Your task to perform on an android device: Search for custom wallets on Etsy. Image 0: 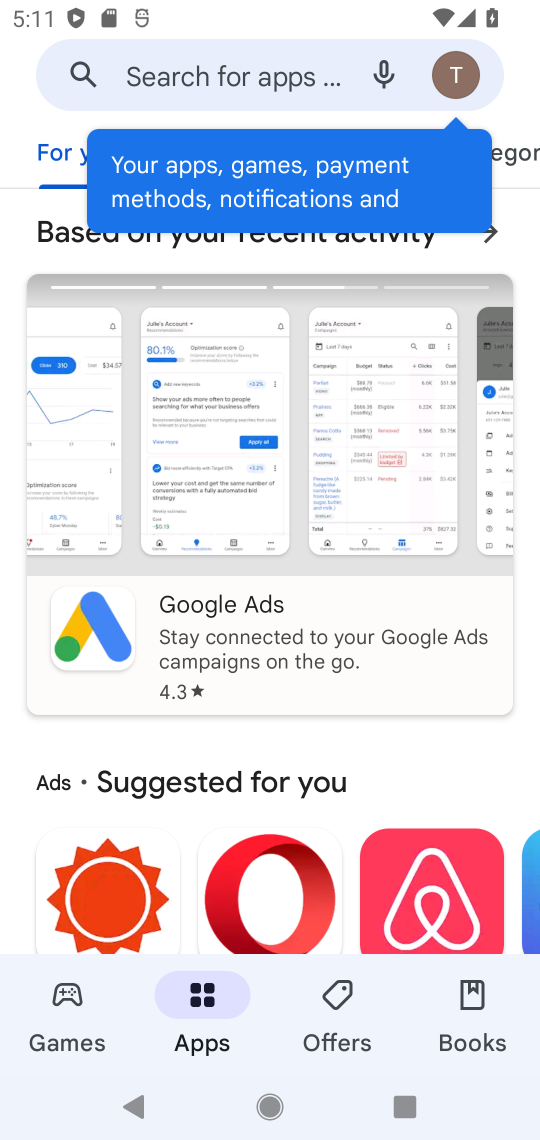
Step 0: press home button
Your task to perform on an android device: Search for custom wallets on Etsy. Image 1: 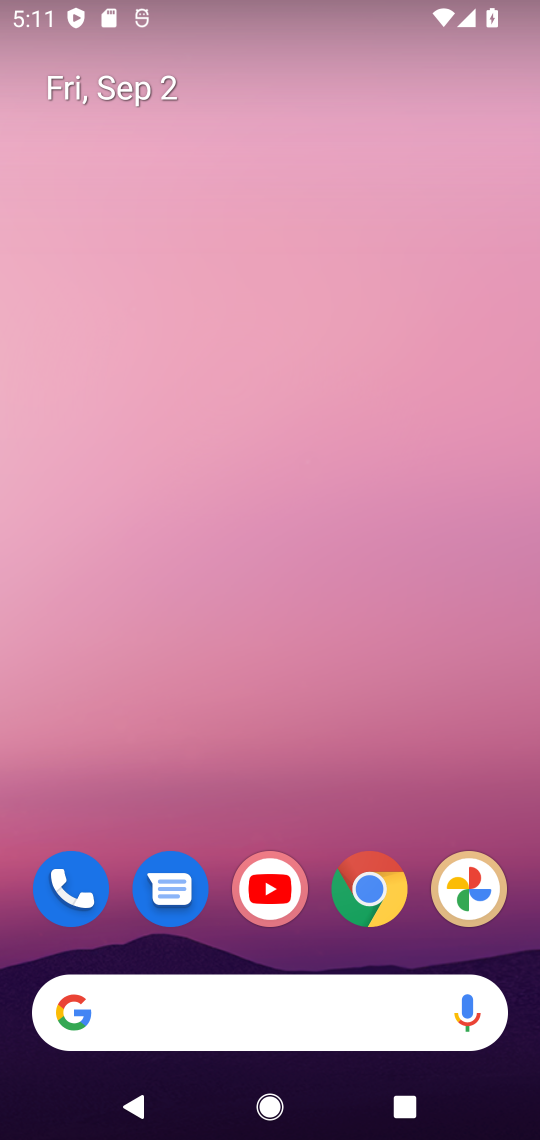
Step 1: click (363, 871)
Your task to perform on an android device: Search for custom wallets on Etsy. Image 2: 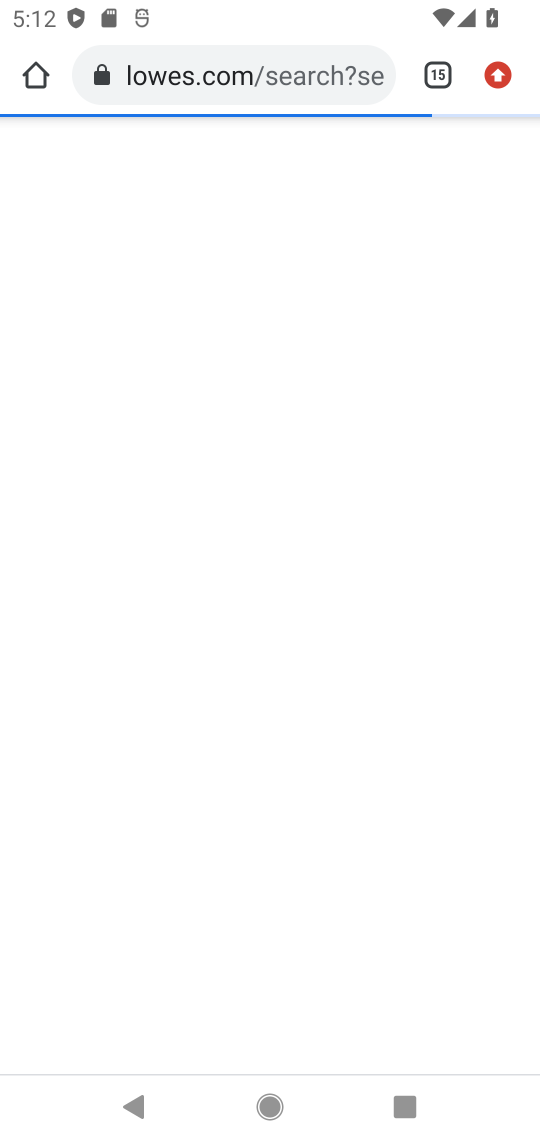
Step 2: click (432, 78)
Your task to perform on an android device: Search for custom wallets on Etsy. Image 3: 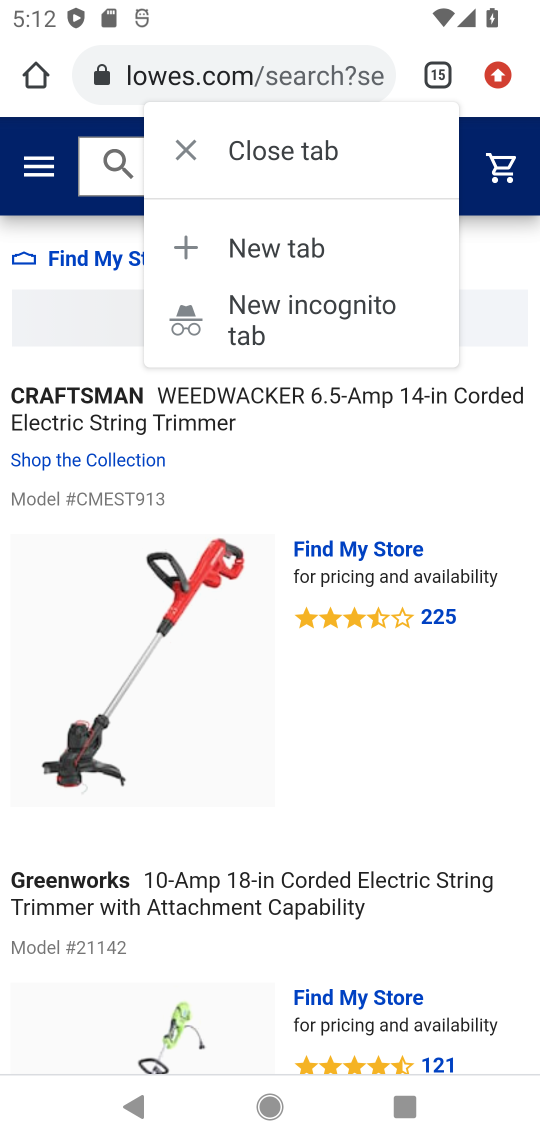
Step 3: click (445, 78)
Your task to perform on an android device: Search for custom wallets on Etsy. Image 4: 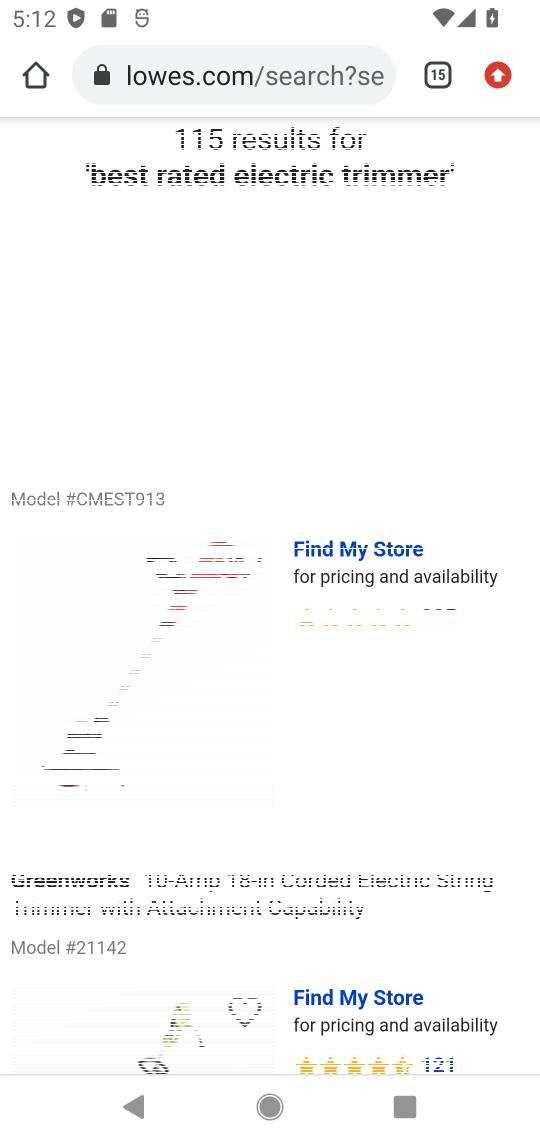
Step 4: click (439, 73)
Your task to perform on an android device: Search for custom wallets on Etsy. Image 5: 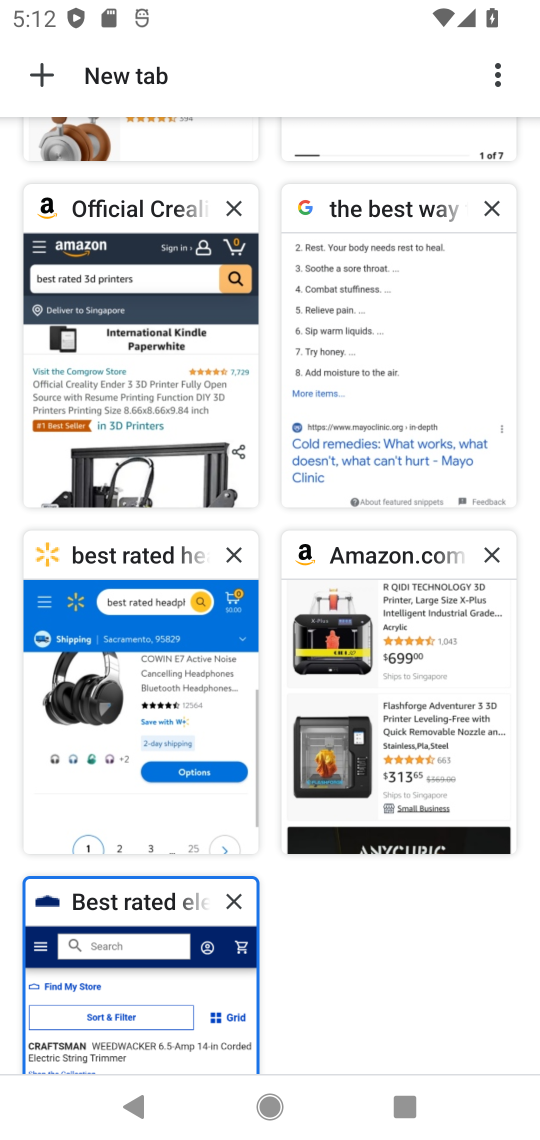
Step 5: click (47, 83)
Your task to perform on an android device: Search for custom wallets on Etsy. Image 6: 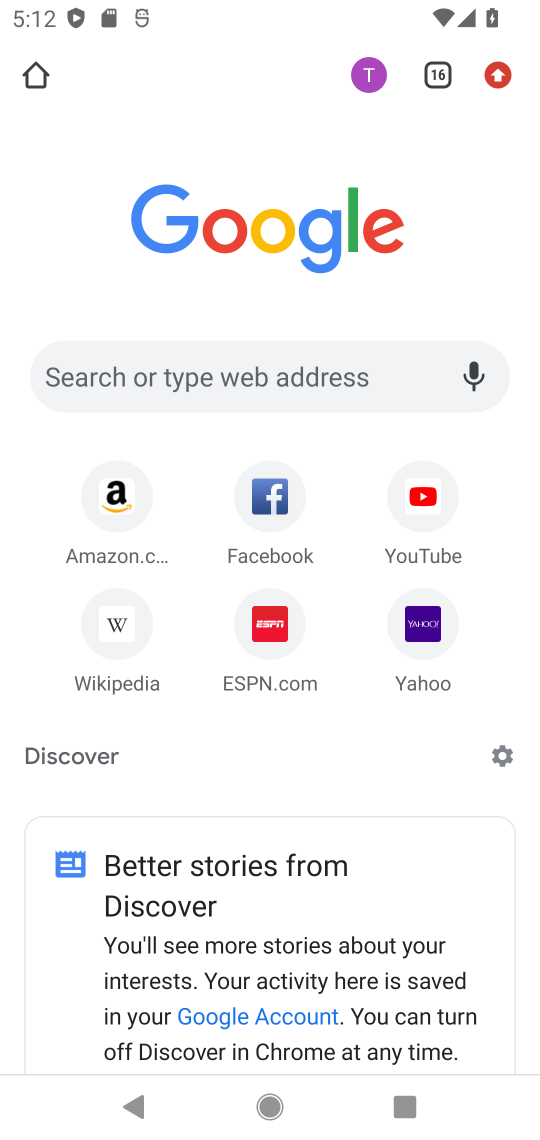
Step 6: click (226, 349)
Your task to perform on an android device: Search for custom wallets on Etsy. Image 7: 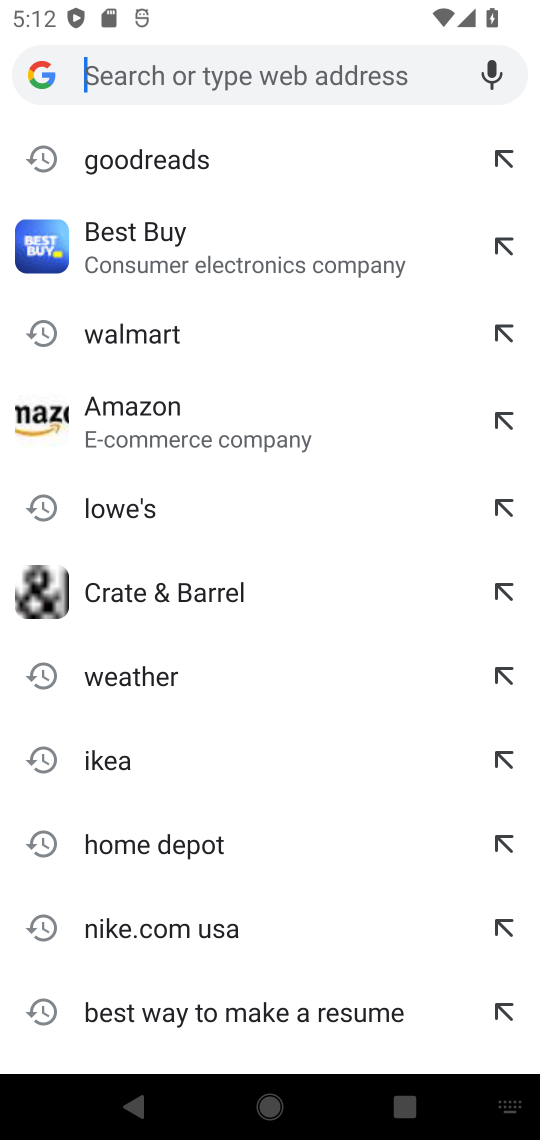
Step 7: type "Etsy."
Your task to perform on an android device: Search for custom wallets on Etsy. Image 8: 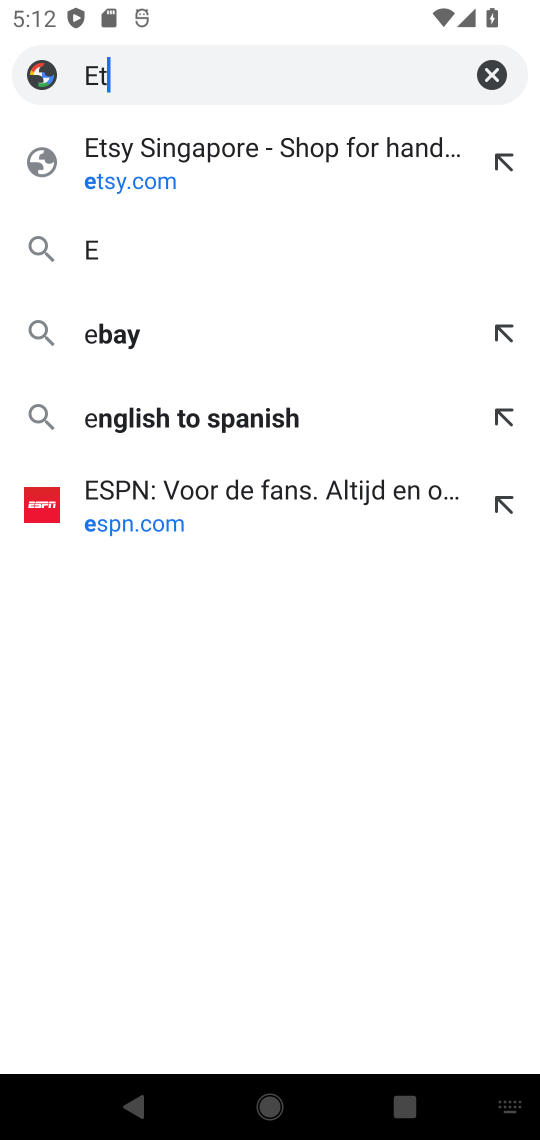
Step 8: type ""
Your task to perform on an android device: Search for custom wallets on Etsy. Image 9: 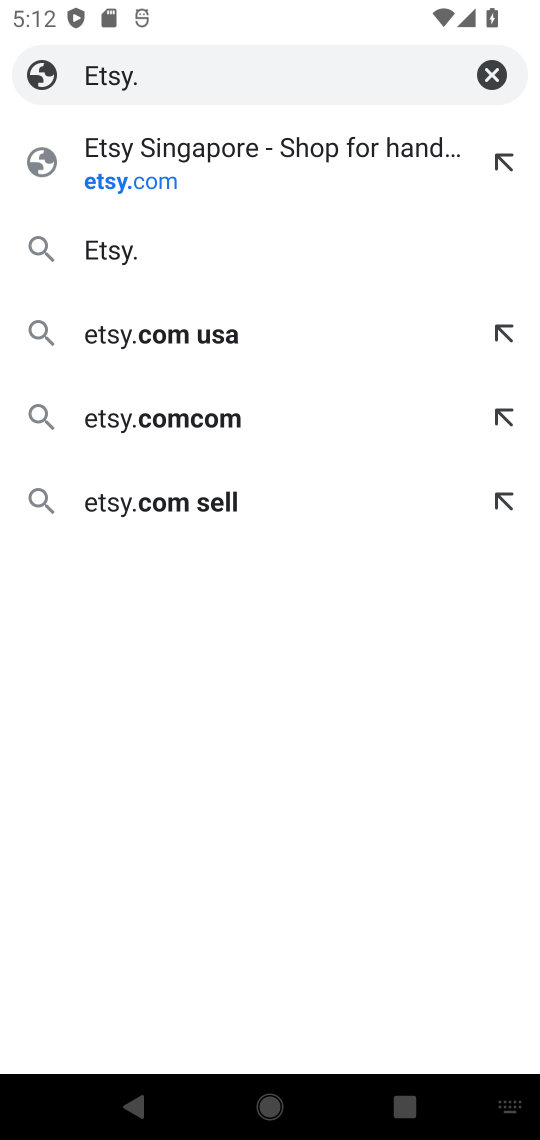
Step 9: click (185, 246)
Your task to perform on an android device: Search for custom wallets on Etsy. Image 10: 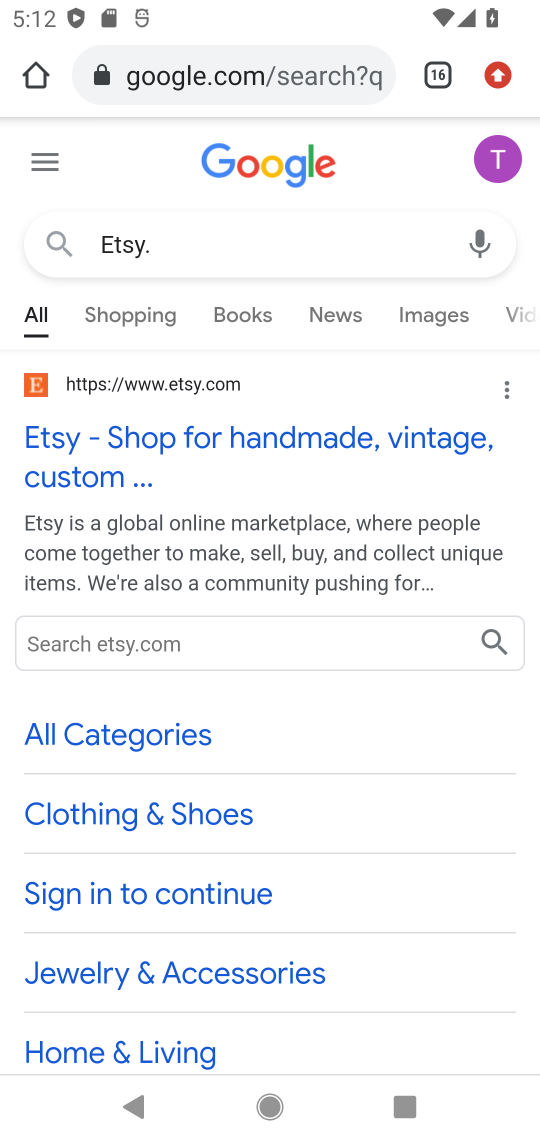
Step 10: click (210, 410)
Your task to perform on an android device: Search for custom wallets on Etsy. Image 11: 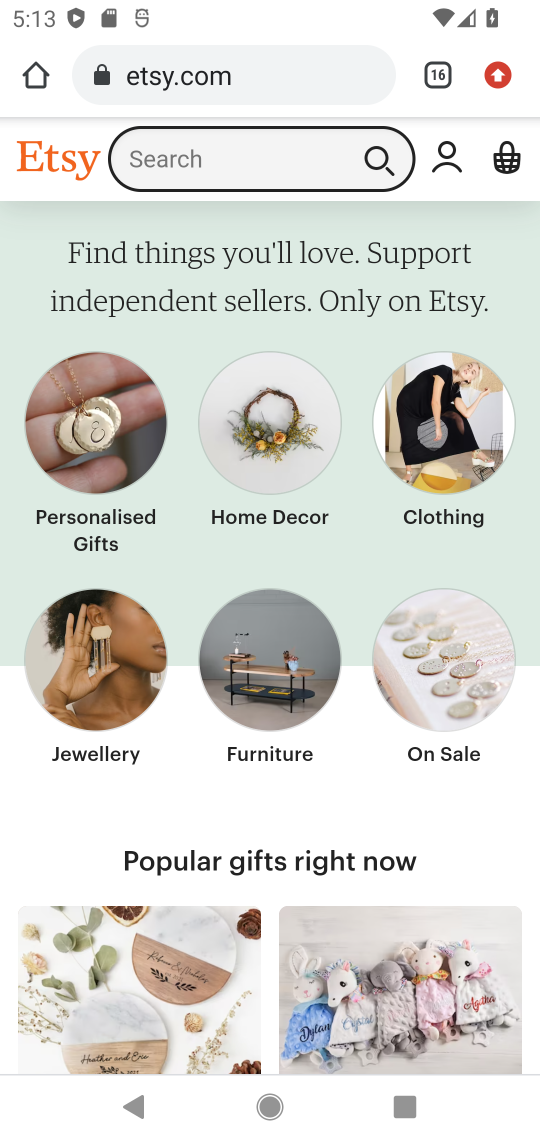
Step 11: type "custom wallets"
Your task to perform on an android device: Search for custom wallets on Etsy. Image 12: 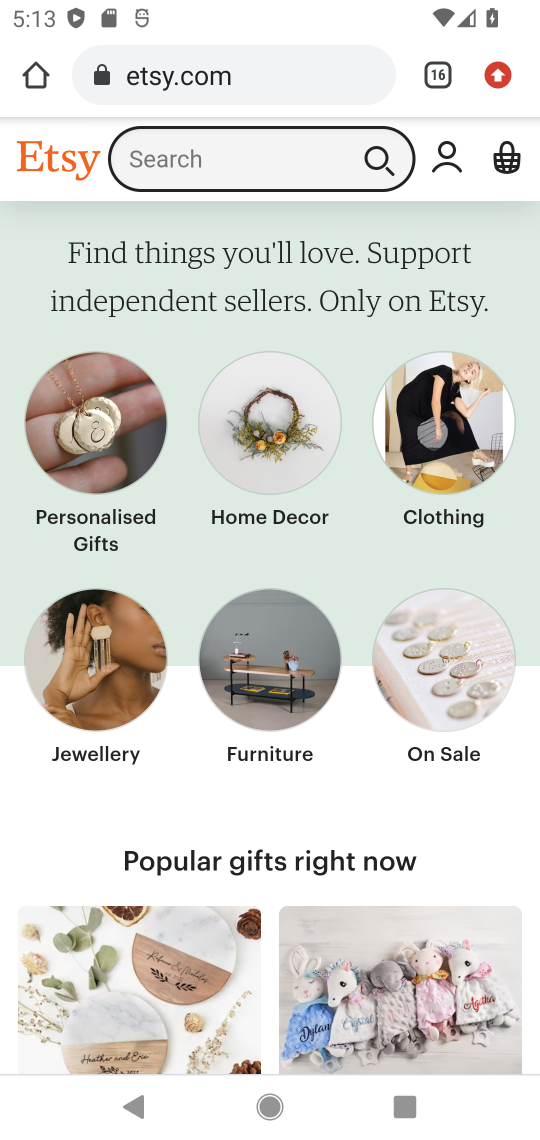
Step 12: type ""
Your task to perform on an android device: Search for custom wallets on Etsy. Image 13: 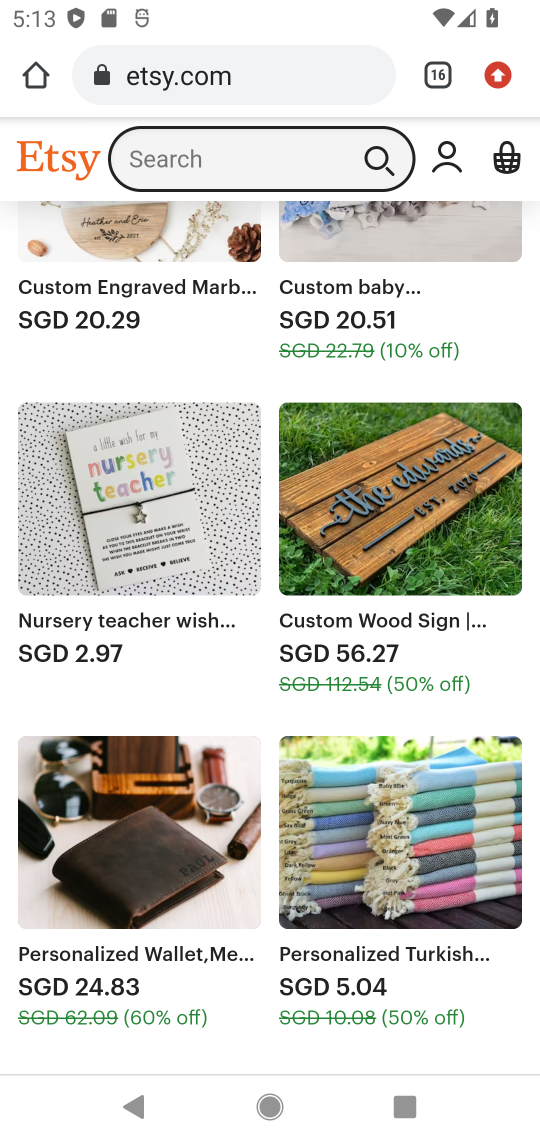
Step 13: click (193, 172)
Your task to perform on an android device: Search for custom wallets on Etsy. Image 14: 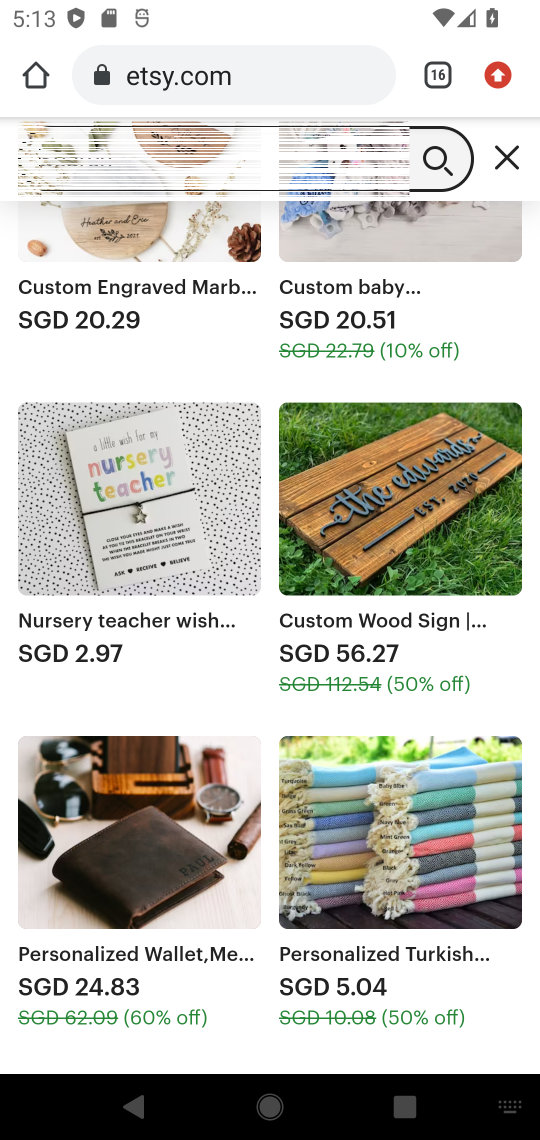
Step 14: type "custom wallets"
Your task to perform on an android device: Search for custom wallets on Etsy. Image 15: 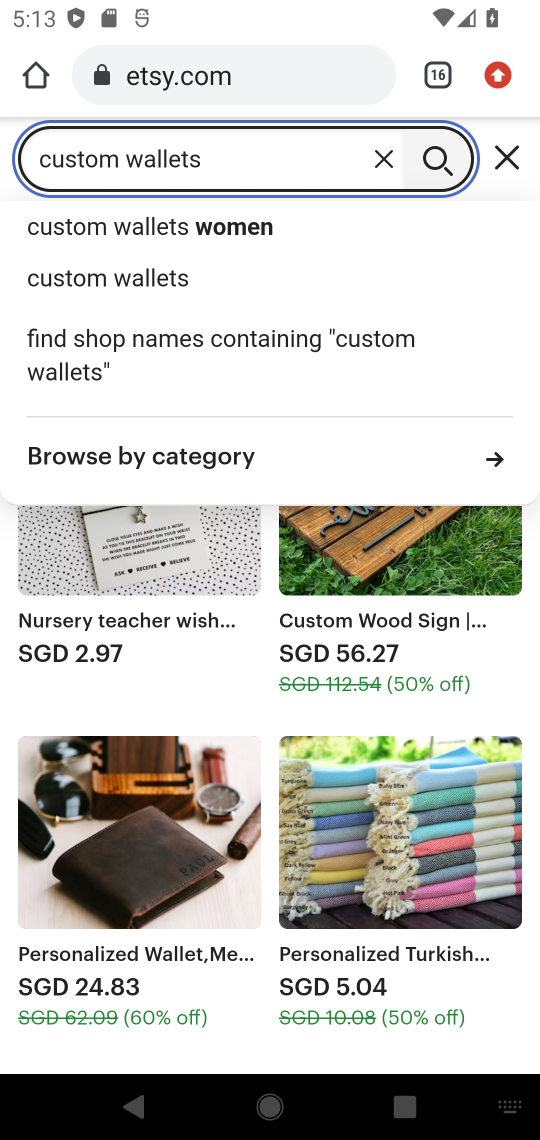
Step 15: click (443, 160)
Your task to perform on an android device: Search for custom wallets on Etsy. Image 16: 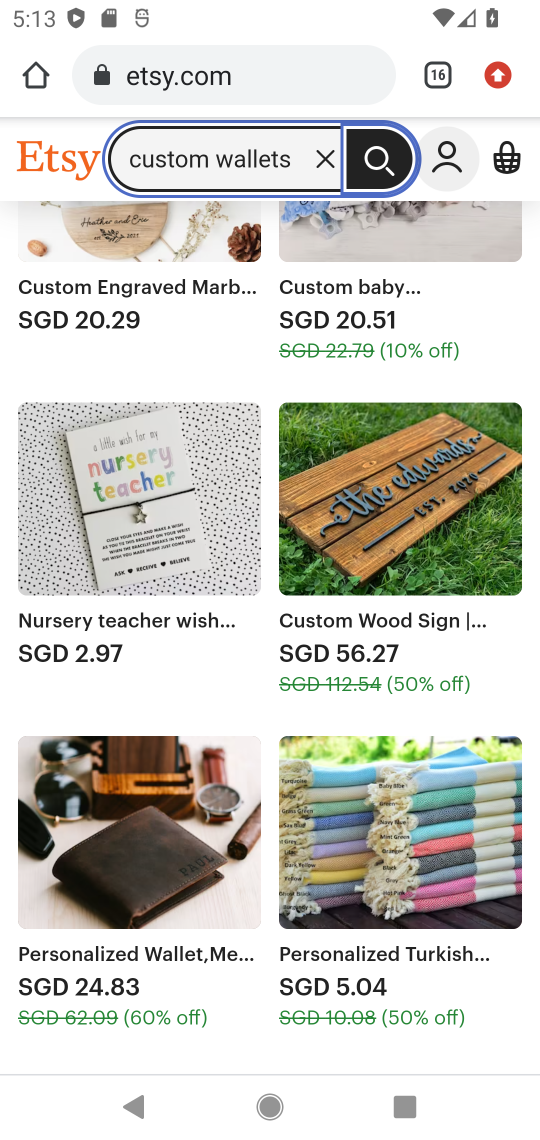
Step 16: click (384, 171)
Your task to perform on an android device: Search for custom wallets on Etsy. Image 17: 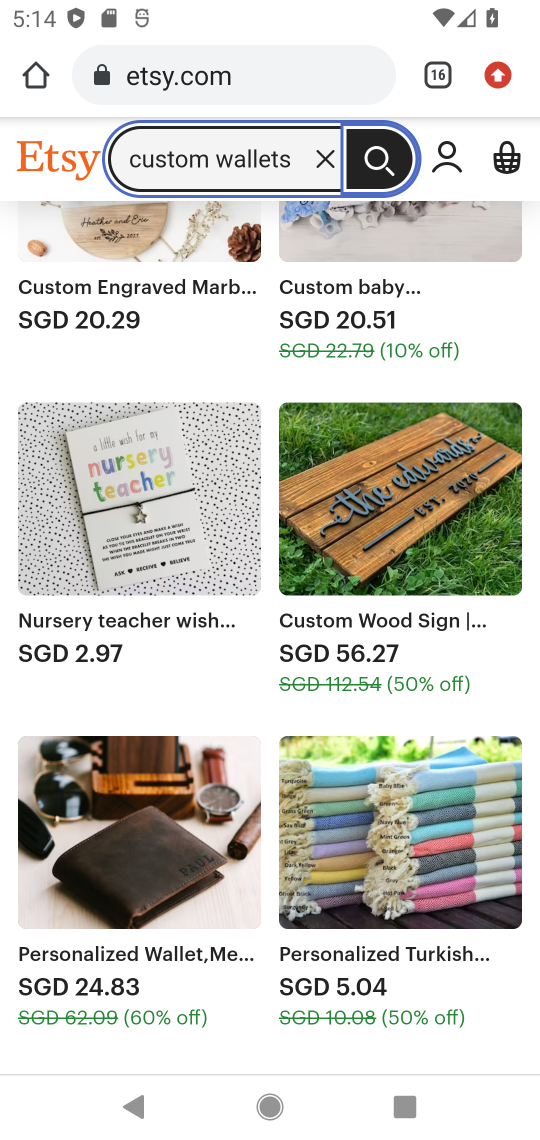
Step 17: click (386, 155)
Your task to perform on an android device: Search for custom wallets on Etsy. Image 18: 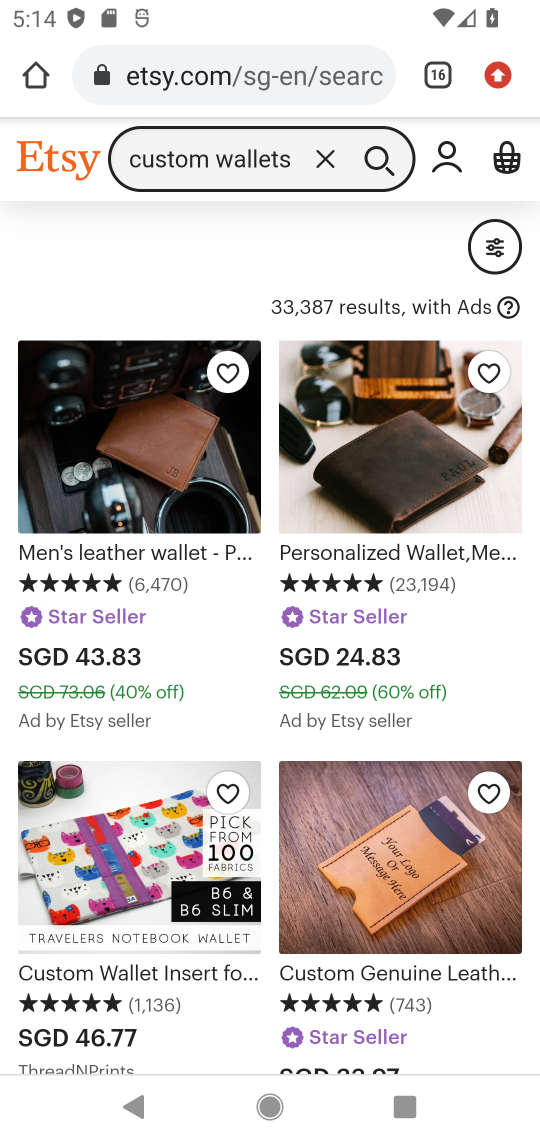
Step 18: task complete